Your task to perform on an android device: Open Google Chrome and open the bookmarks view Image 0: 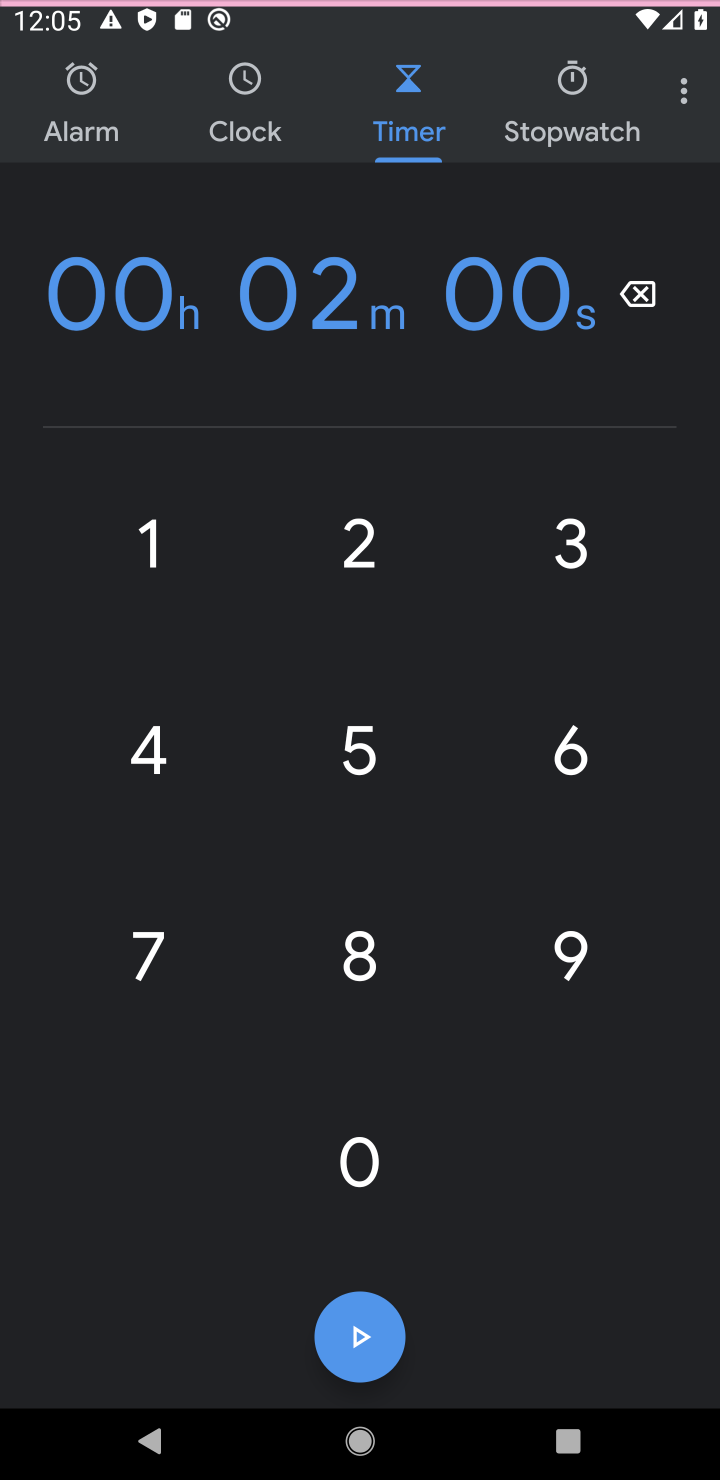
Step 0: press home button
Your task to perform on an android device: Open Google Chrome and open the bookmarks view Image 1: 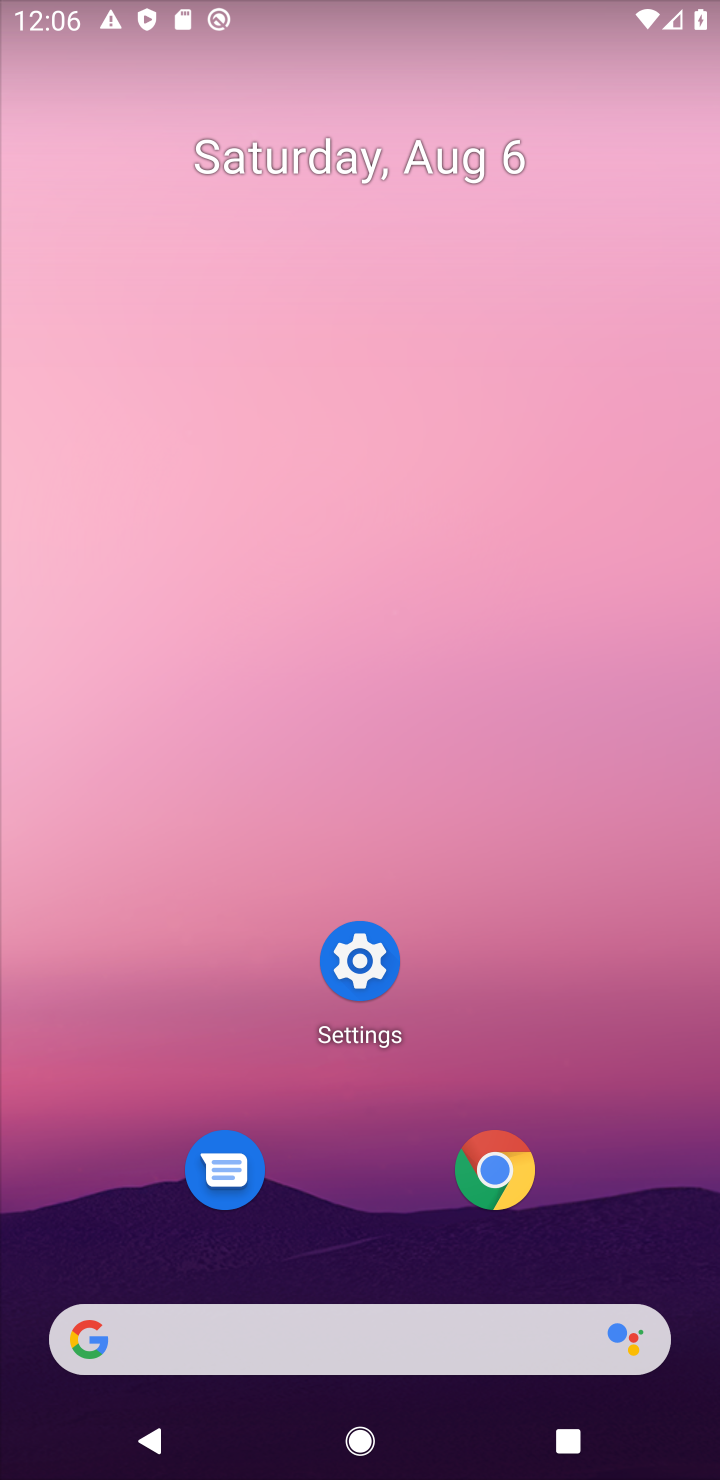
Step 1: click (486, 1172)
Your task to perform on an android device: Open Google Chrome and open the bookmarks view Image 2: 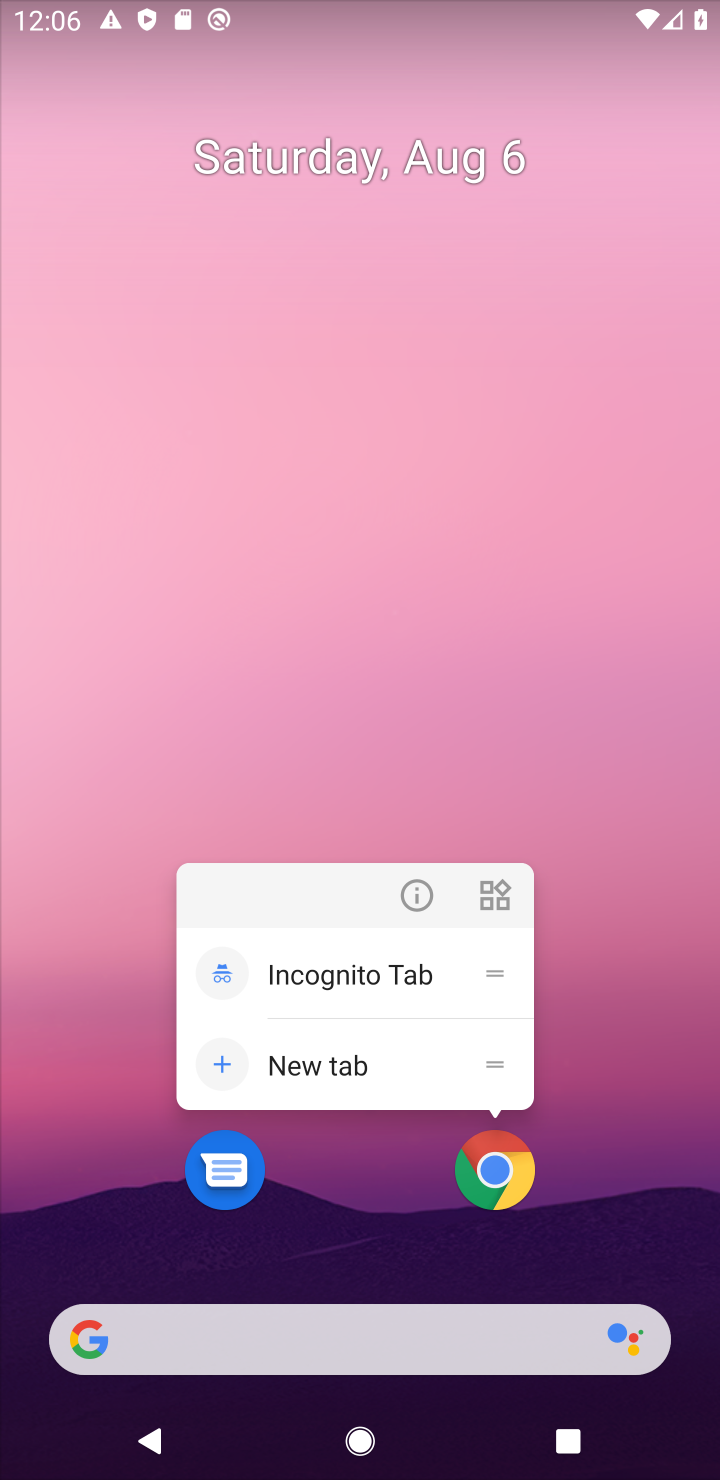
Step 2: click (486, 1172)
Your task to perform on an android device: Open Google Chrome and open the bookmarks view Image 3: 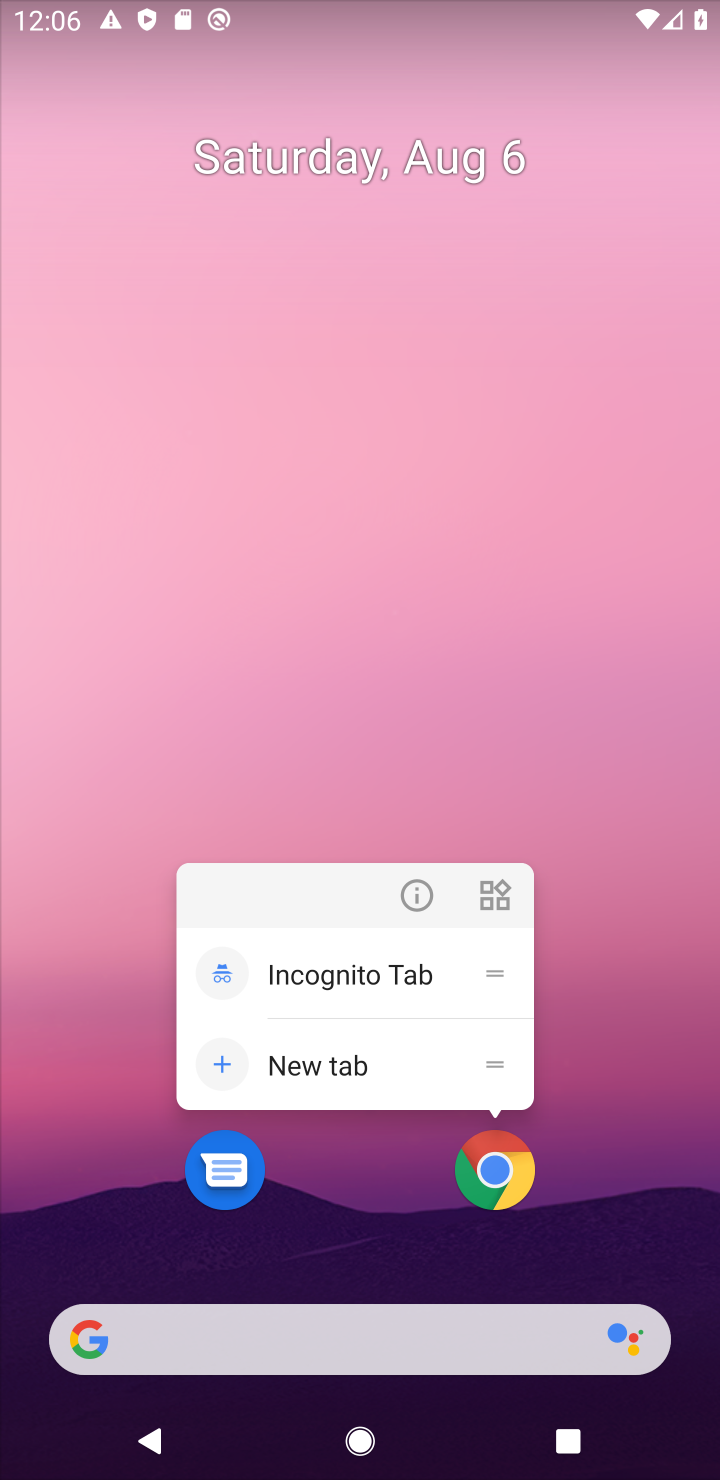
Step 3: click (486, 1172)
Your task to perform on an android device: Open Google Chrome and open the bookmarks view Image 4: 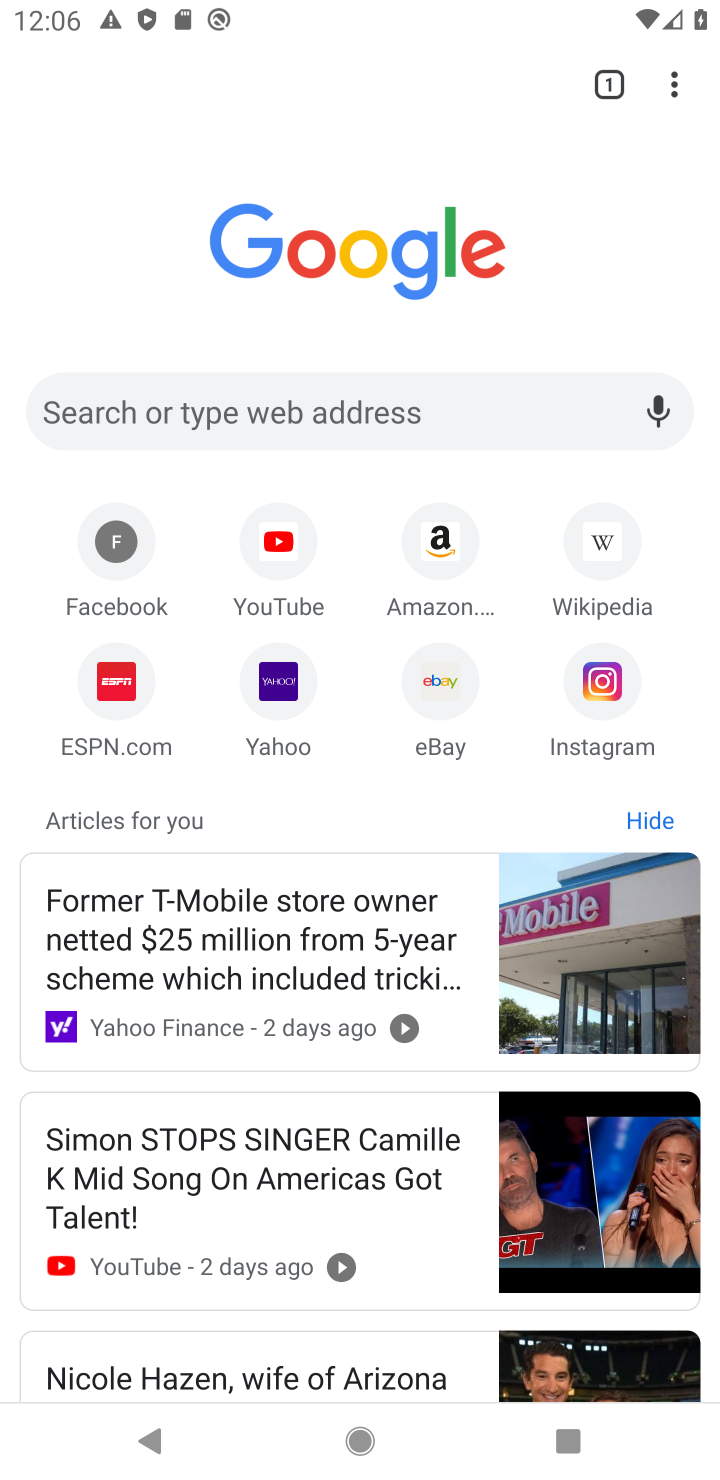
Step 4: click (673, 86)
Your task to perform on an android device: Open Google Chrome and open the bookmarks view Image 5: 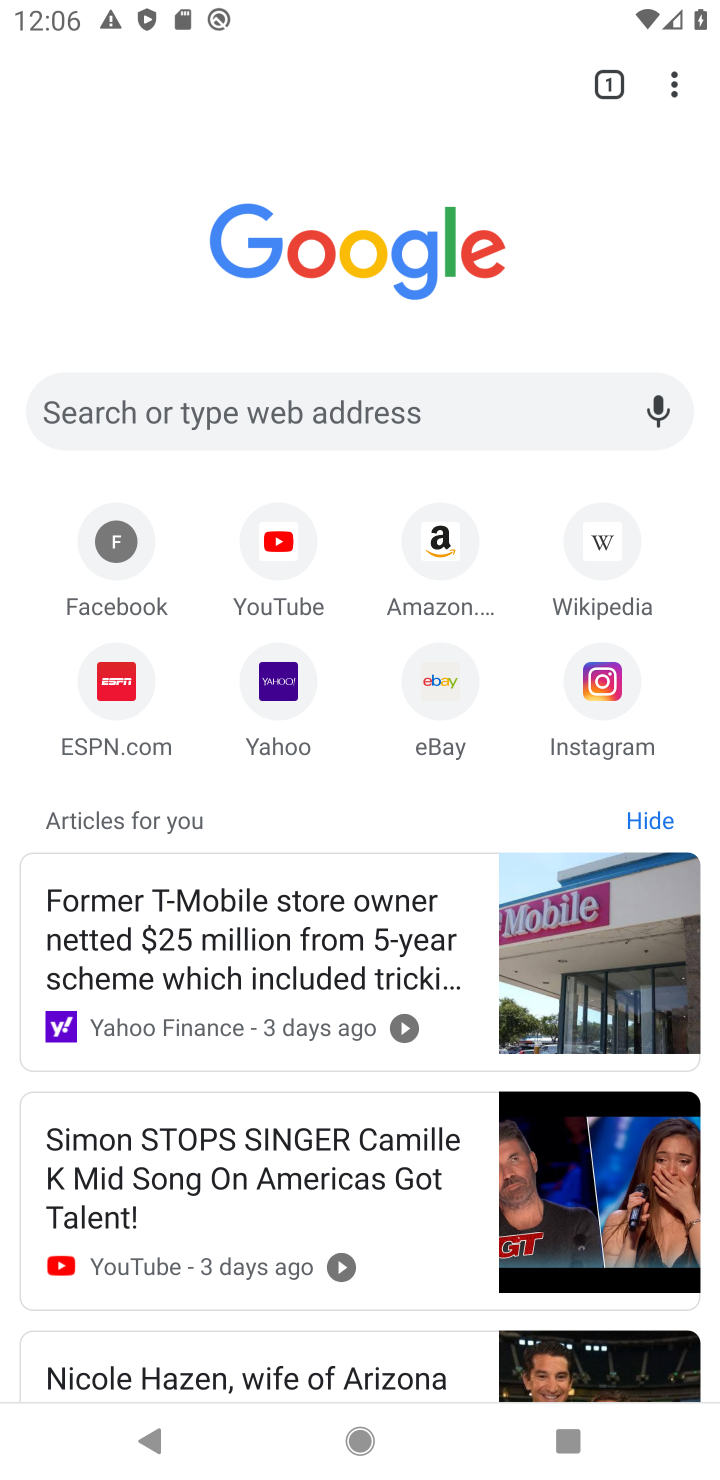
Step 5: click (671, 91)
Your task to perform on an android device: Open Google Chrome and open the bookmarks view Image 6: 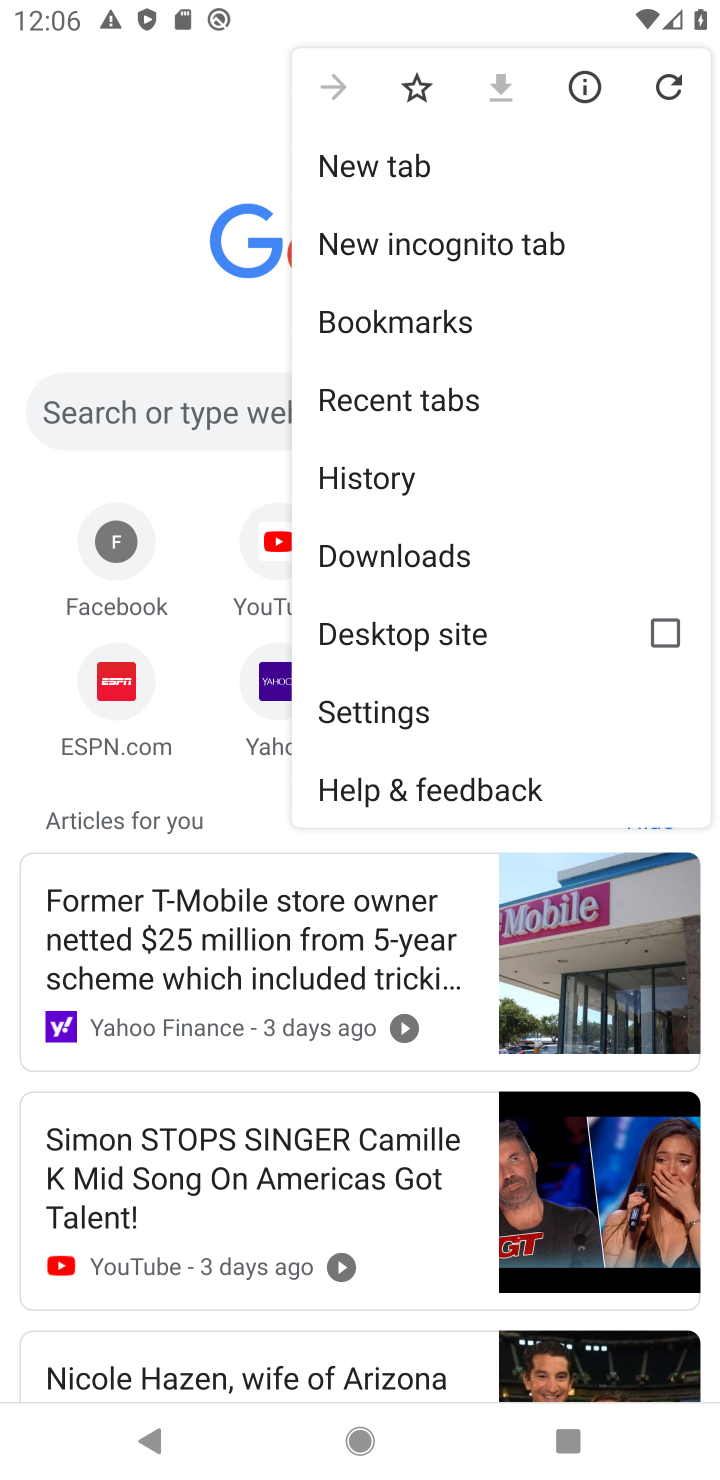
Step 6: click (399, 320)
Your task to perform on an android device: Open Google Chrome and open the bookmarks view Image 7: 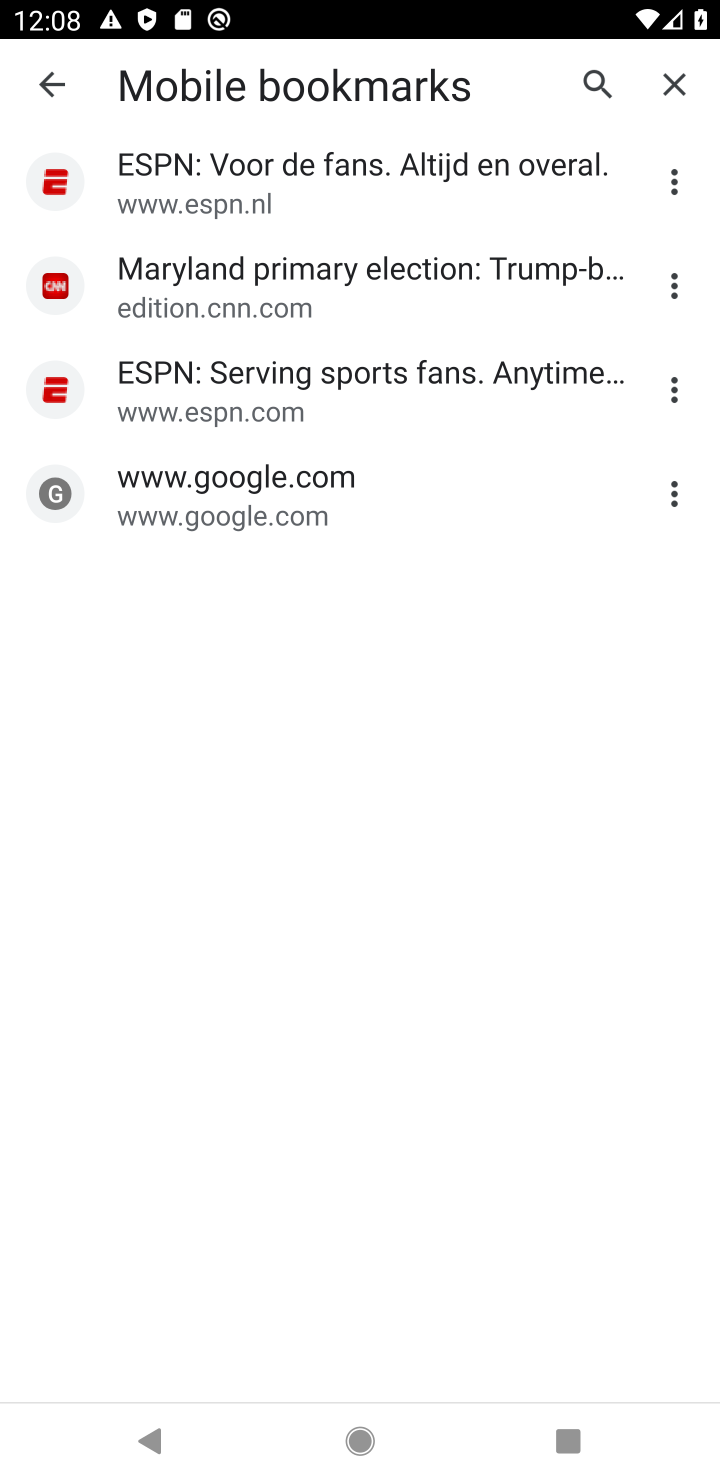
Step 7: task complete